Your task to perform on an android device: Open notification settings Image 0: 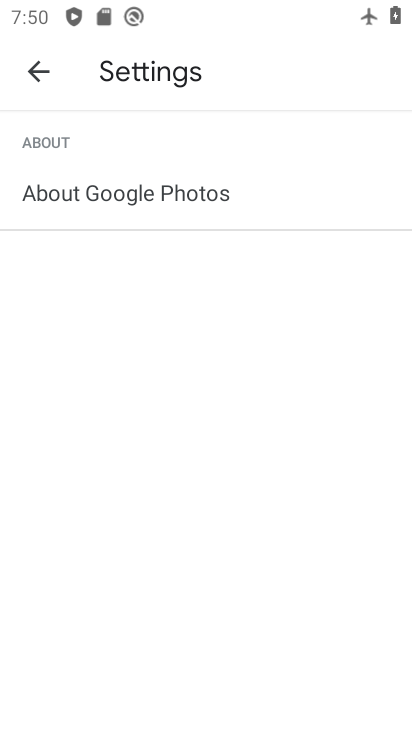
Step 0: press home button
Your task to perform on an android device: Open notification settings Image 1: 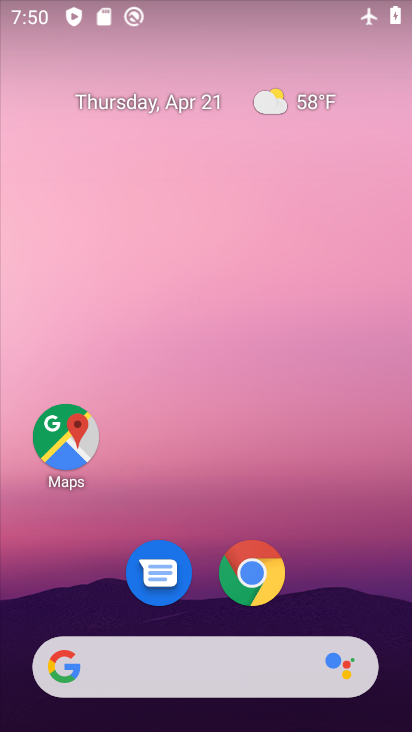
Step 1: drag from (174, 604) to (188, 331)
Your task to perform on an android device: Open notification settings Image 2: 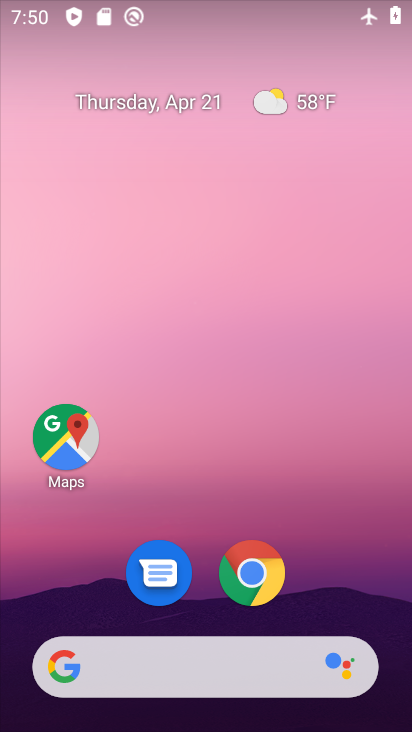
Step 2: drag from (202, 638) to (237, 255)
Your task to perform on an android device: Open notification settings Image 3: 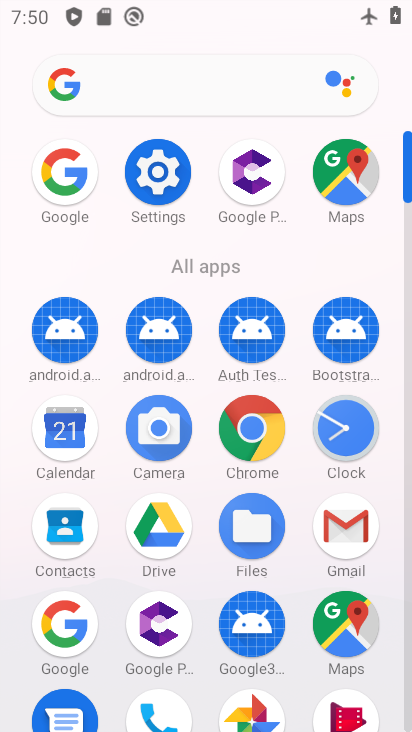
Step 3: click (159, 167)
Your task to perform on an android device: Open notification settings Image 4: 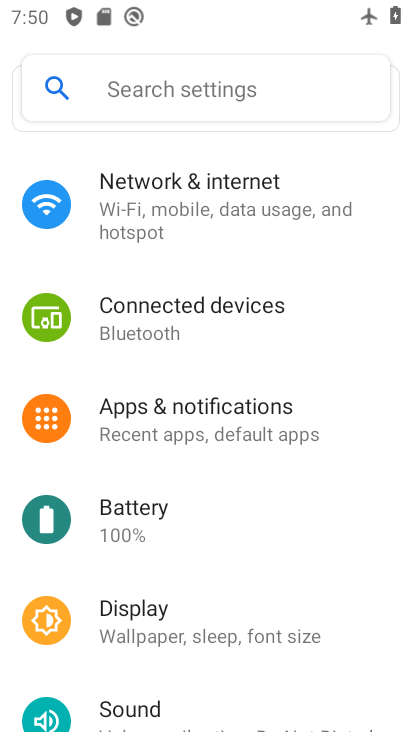
Step 4: click (162, 409)
Your task to perform on an android device: Open notification settings Image 5: 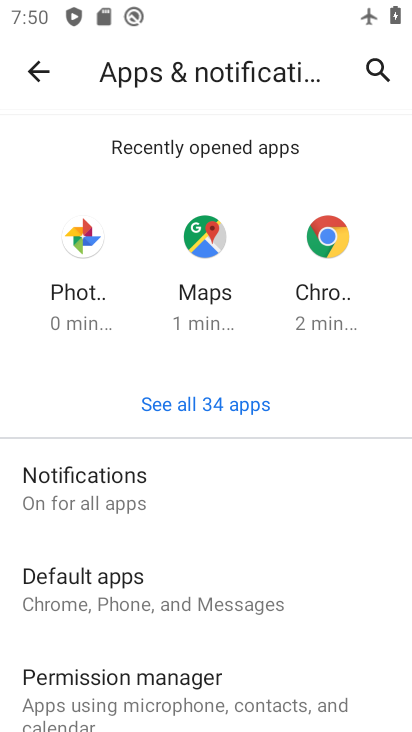
Step 5: drag from (208, 682) to (239, 342)
Your task to perform on an android device: Open notification settings Image 6: 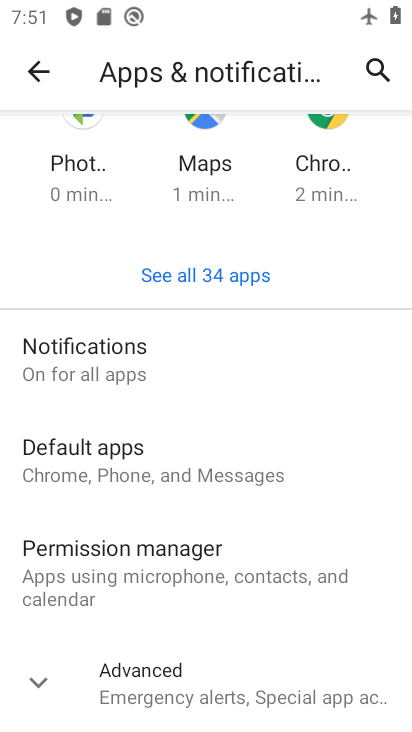
Step 6: click (190, 678)
Your task to perform on an android device: Open notification settings Image 7: 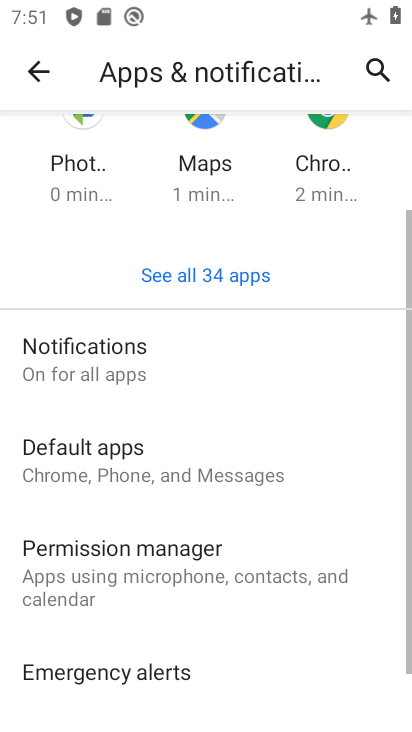
Step 7: task complete